Your task to perform on an android device: Open Google Image 0: 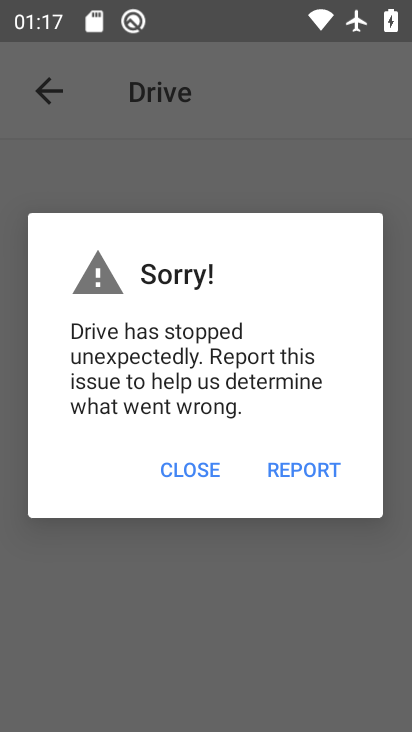
Step 0: press home button
Your task to perform on an android device: Open Google Image 1: 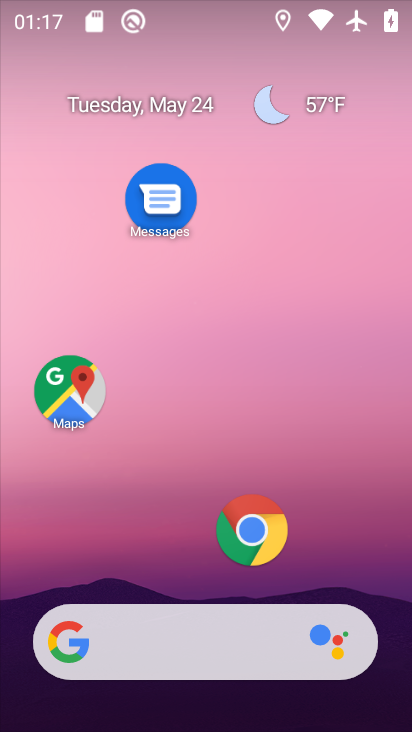
Step 1: drag from (140, 565) to (167, 37)
Your task to perform on an android device: Open Google Image 2: 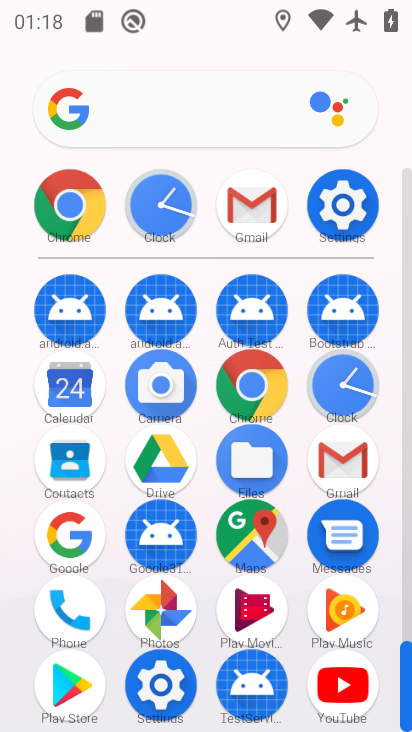
Step 2: click (75, 519)
Your task to perform on an android device: Open Google Image 3: 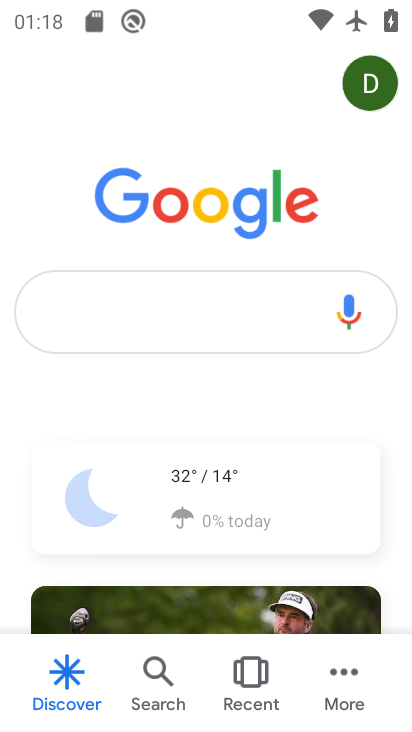
Step 3: task complete